Your task to perform on an android device: turn off translation in the chrome app Image 0: 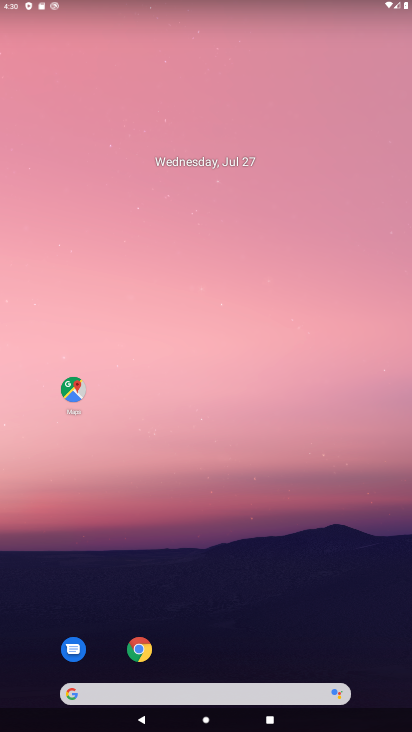
Step 0: click (141, 648)
Your task to perform on an android device: turn off translation in the chrome app Image 1: 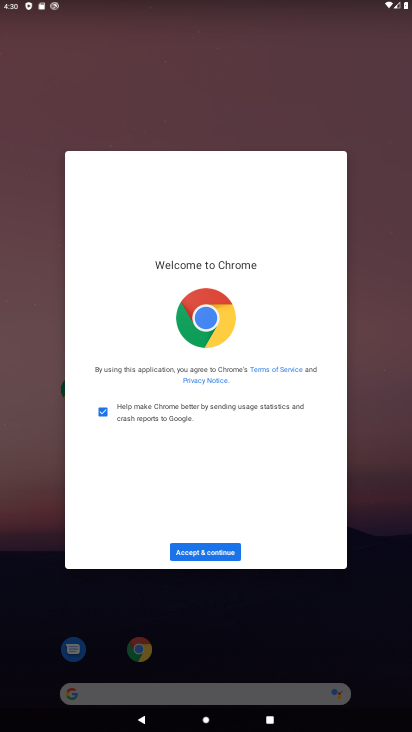
Step 1: click (199, 546)
Your task to perform on an android device: turn off translation in the chrome app Image 2: 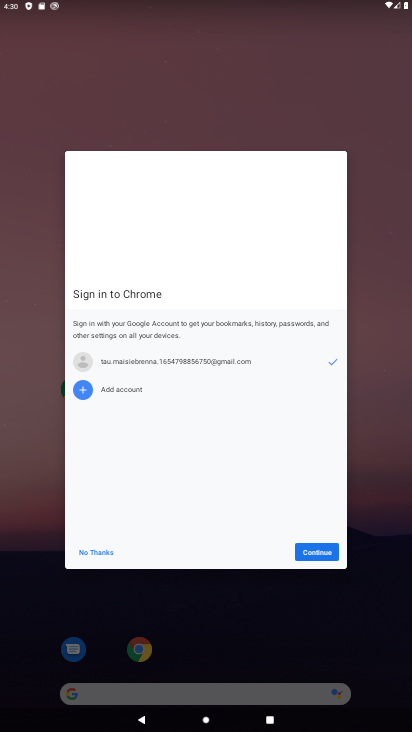
Step 2: click (313, 552)
Your task to perform on an android device: turn off translation in the chrome app Image 3: 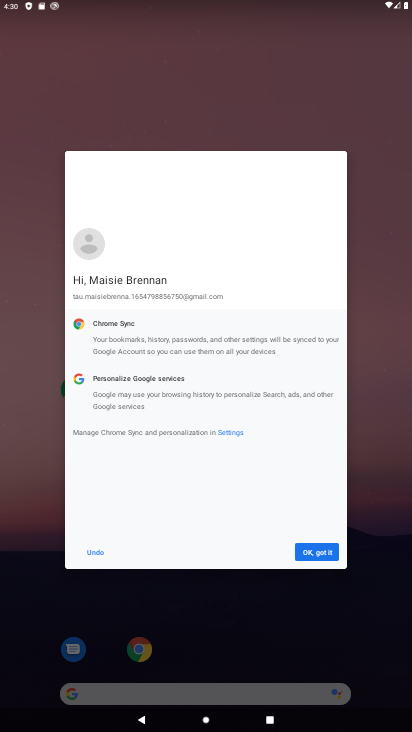
Step 3: click (314, 547)
Your task to perform on an android device: turn off translation in the chrome app Image 4: 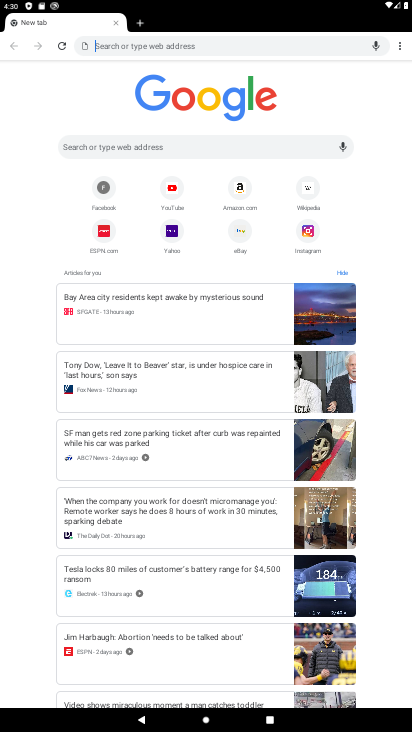
Step 4: click (399, 46)
Your task to perform on an android device: turn off translation in the chrome app Image 5: 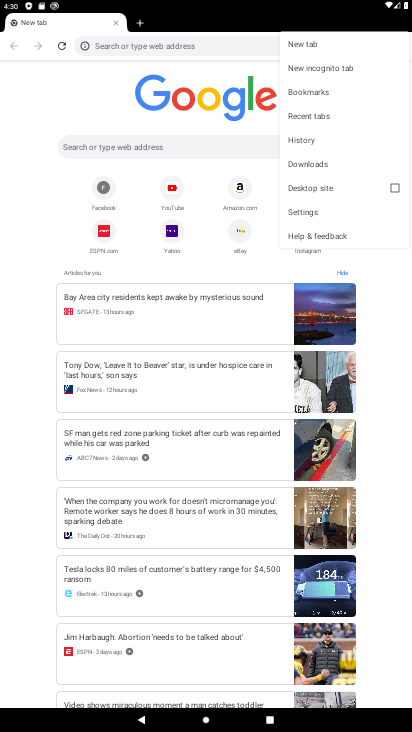
Step 5: click (309, 210)
Your task to perform on an android device: turn off translation in the chrome app Image 6: 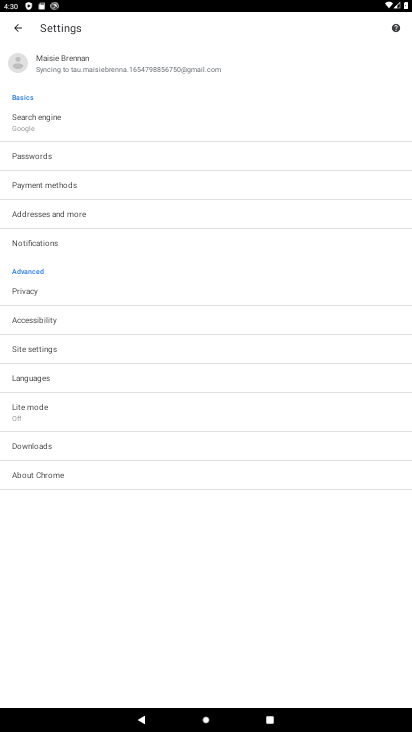
Step 6: click (37, 382)
Your task to perform on an android device: turn off translation in the chrome app Image 7: 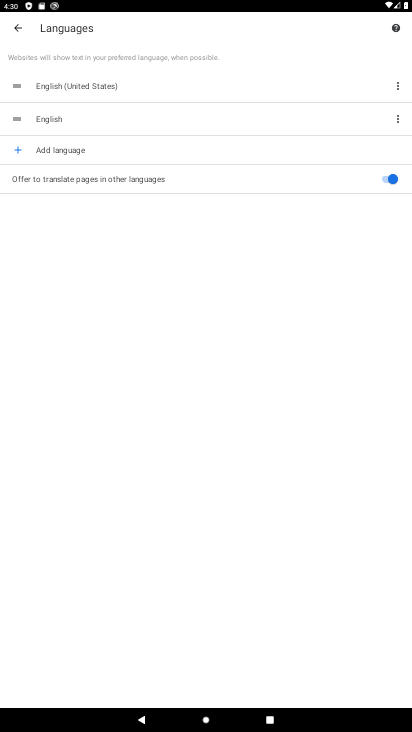
Step 7: click (389, 179)
Your task to perform on an android device: turn off translation in the chrome app Image 8: 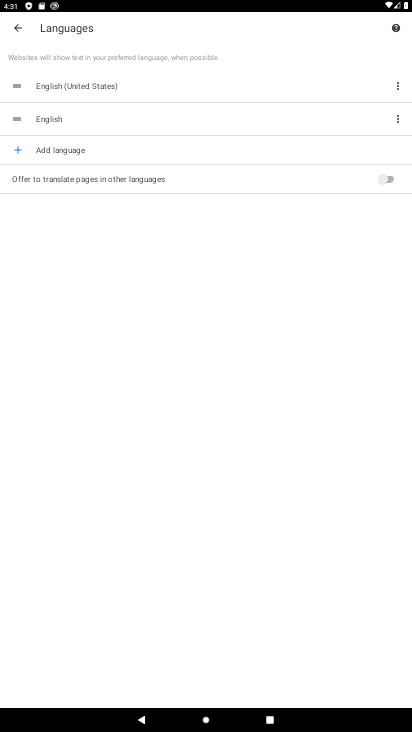
Step 8: task complete